Your task to perform on an android device: check battery use Image 0: 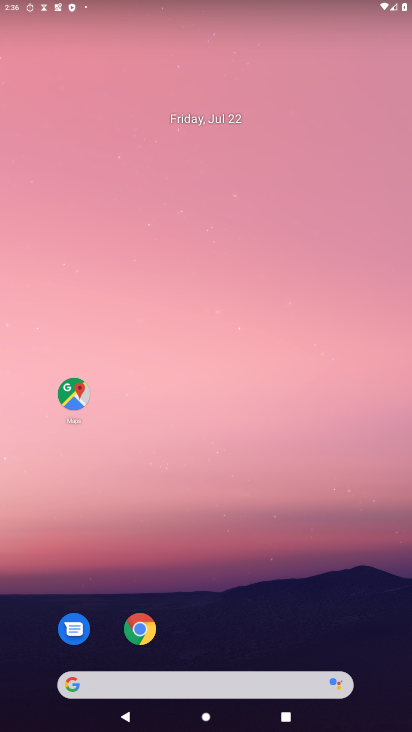
Step 0: drag from (282, 641) to (318, 66)
Your task to perform on an android device: check battery use Image 1: 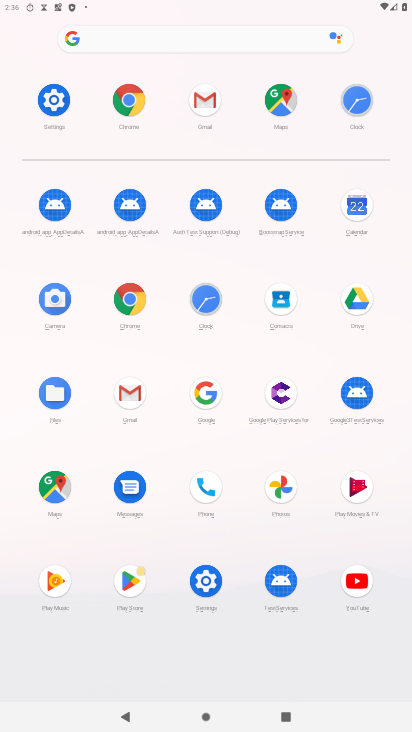
Step 1: click (53, 107)
Your task to perform on an android device: check battery use Image 2: 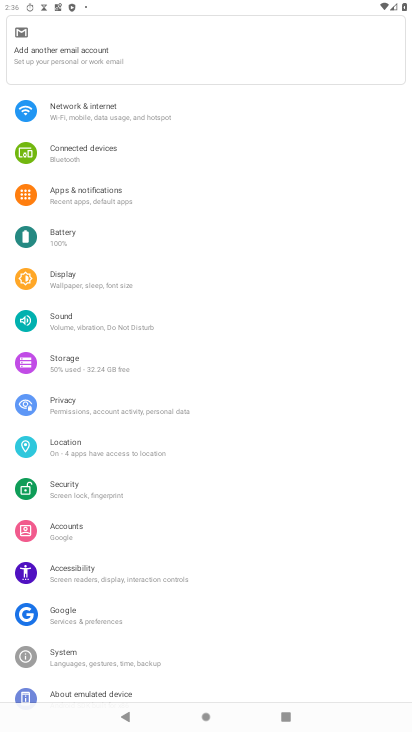
Step 2: click (80, 239)
Your task to perform on an android device: check battery use Image 3: 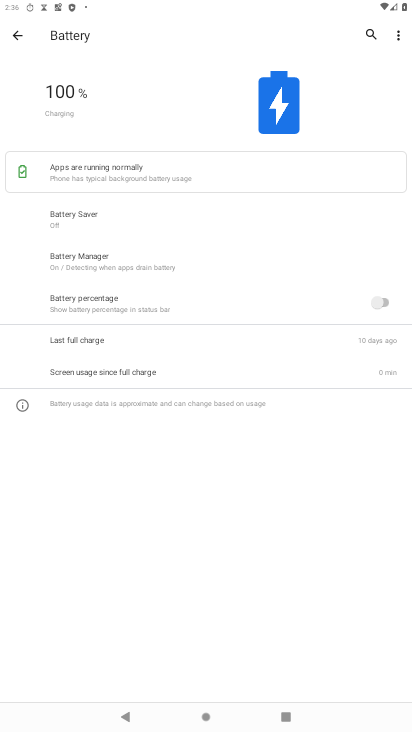
Step 3: task complete